Your task to perform on an android device: Open the Play Movies app and select the watchlist tab. Image 0: 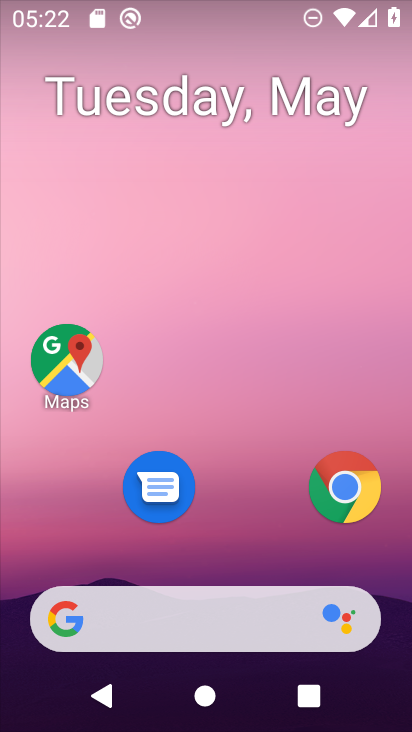
Step 0: drag from (277, 555) to (291, 27)
Your task to perform on an android device: Open the Play Movies app and select the watchlist tab. Image 1: 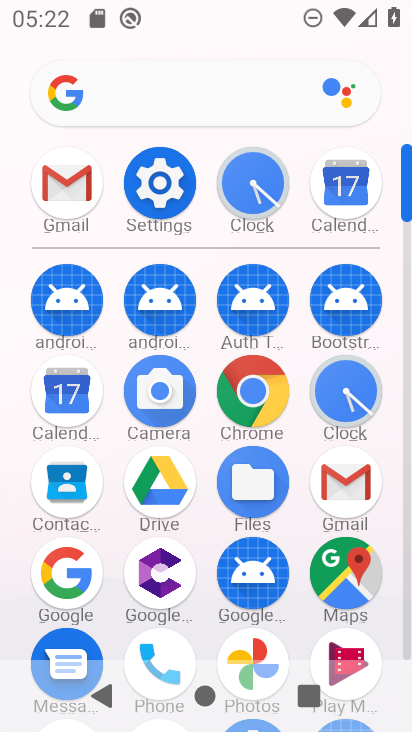
Step 1: click (406, 649)
Your task to perform on an android device: Open the Play Movies app and select the watchlist tab. Image 2: 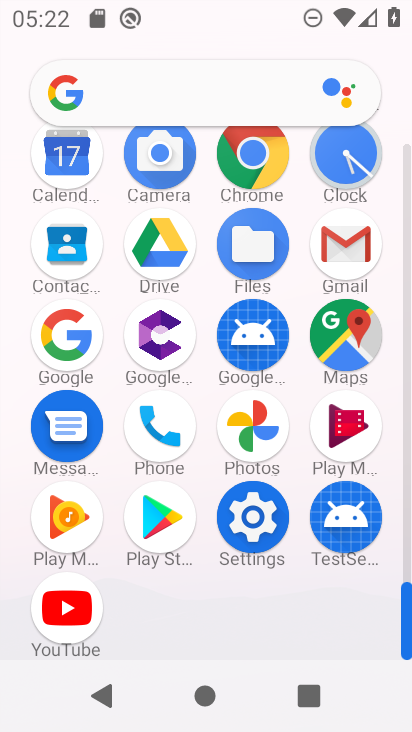
Step 2: click (375, 410)
Your task to perform on an android device: Open the Play Movies app and select the watchlist tab. Image 3: 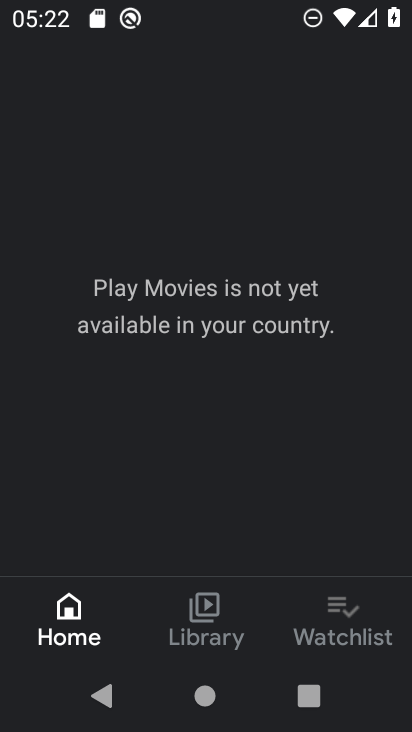
Step 3: click (371, 637)
Your task to perform on an android device: Open the Play Movies app and select the watchlist tab. Image 4: 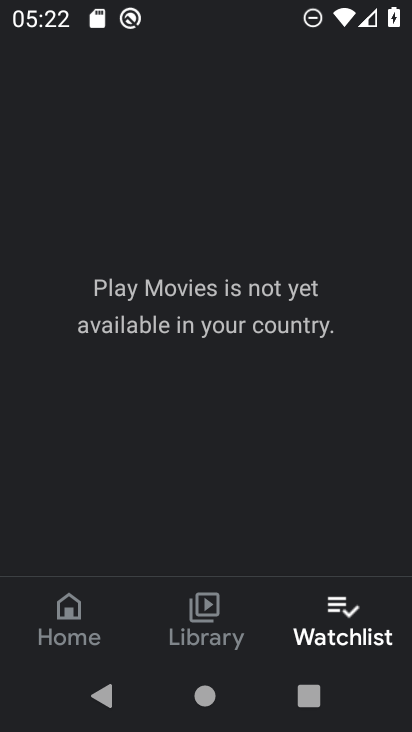
Step 4: task complete